Your task to perform on an android device: turn notification dots off Image 0: 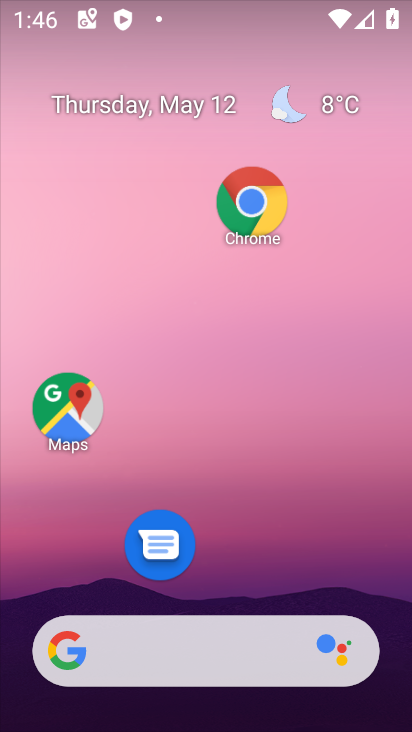
Step 0: click (300, 230)
Your task to perform on an android device: turn notification dots off Image 1: 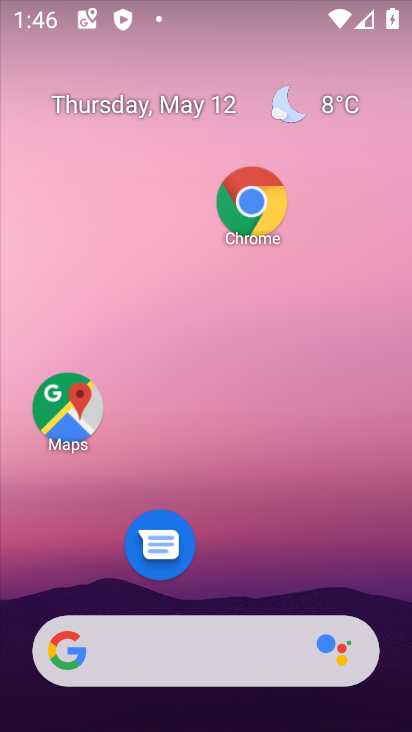
Step 1: drag from (214, 485) to (246, 72)
Your task to perform on an android device: turn notification dots off Image 2: 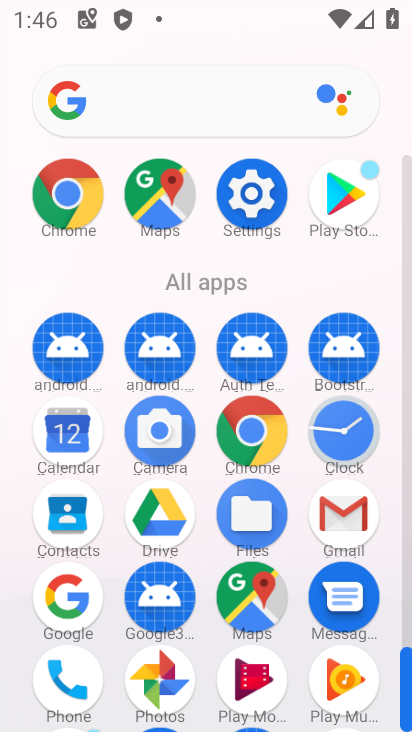
Step 2: click (249, 198)
Your task to perform on an android device: turn notification dots off Image 3: 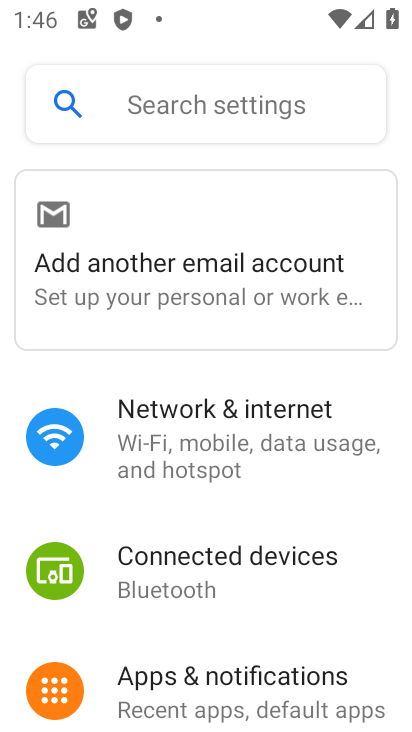
Step 3: drag from (244, 651) to (292, 255)
Your task to perform on an android device: turn notification dots off Image 4: 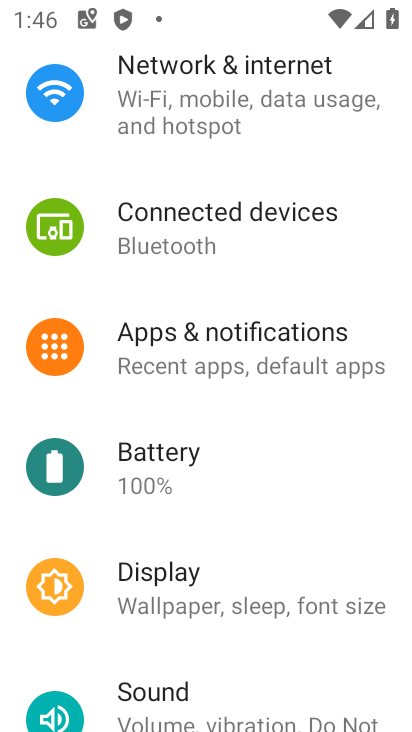
Step 4: click (217, 332)
Your task to perform on an android device: turn notification dots off Image 5: 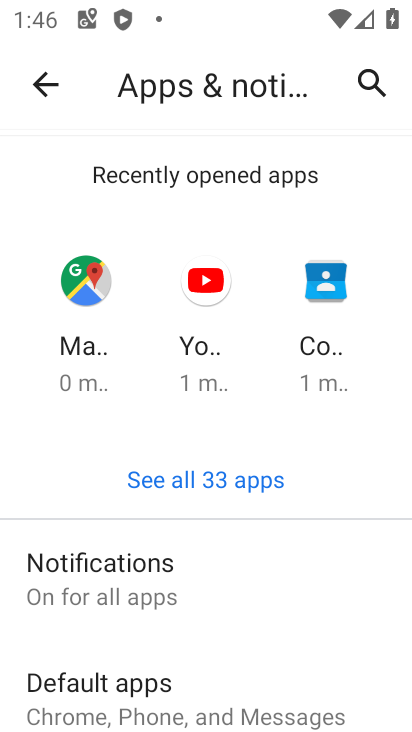
Step 5: drag from (289, 591) to (290, 276)
Your task to perform on an android device: turn notification dots off Image 6: 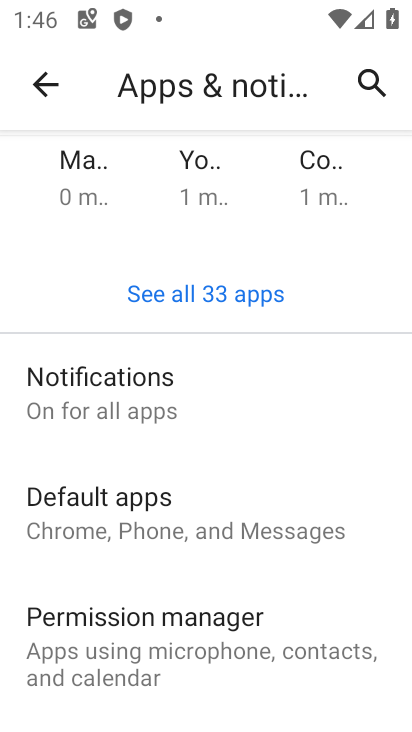
Step 6: drag from (220, 253) to (241, 665)
Your task to perform on an android device: turn notification dots off Image 7: 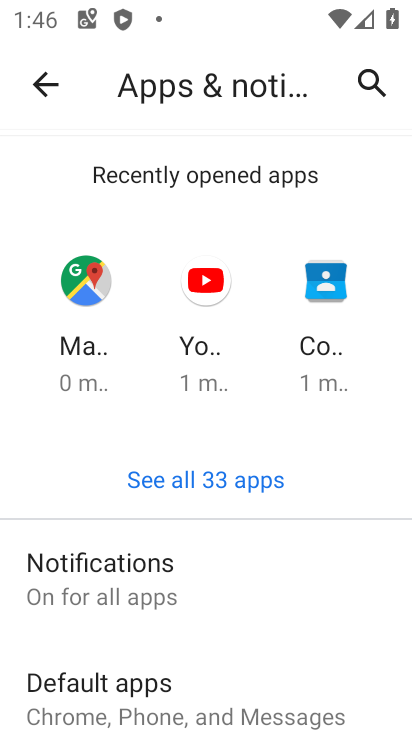
Step 7: drag from (257, 393) to (238, 670)
Your task to perform on an android device: turn notification dots off Image 8: 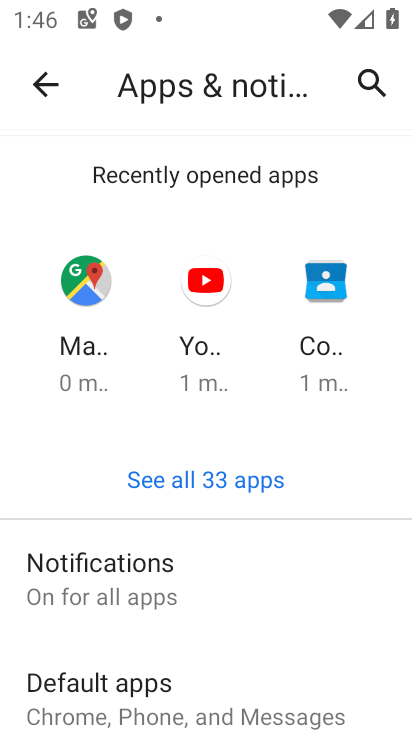
Step 8: drag from (260, 621) to (268, 228)
Your task to perform on an android device: turn notification dots off Image 9: 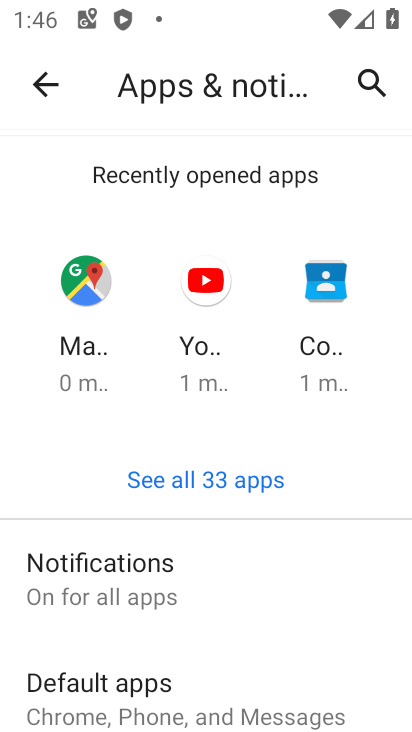
Step 9: drag from (228, 207) to (243, 658)
Your task to perform on an android device: turn notification dots off Image 10: 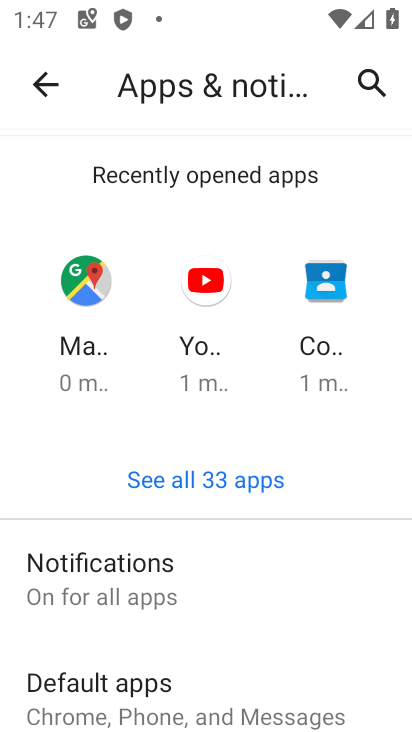
Step 10: click (179, 584)
Your task to perform on an android device: turn notification dots off Image 11: 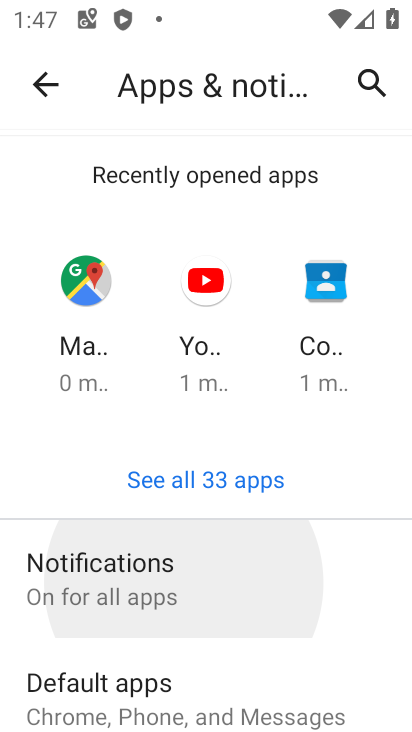
Step 11: click (182, 579)
Your task to perform on an android device: turn notification dots off Image 12: 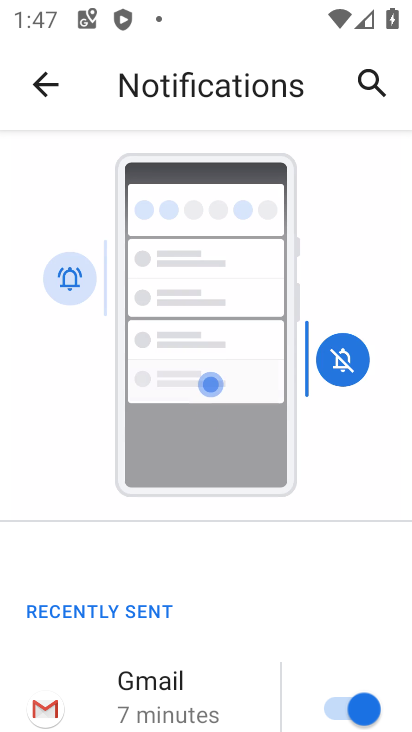
Step 12: drag from (233, 502) to (321, 65)
Your task to perform on an android device: turn notification dots off Image 13: 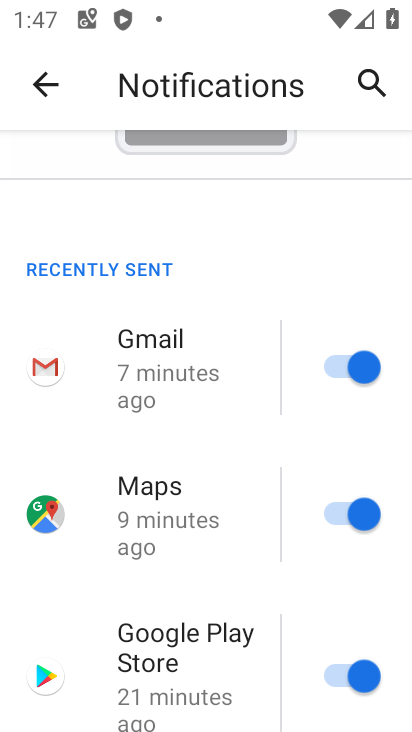
Step 13: drag from (247, 577) to (259, 125)
Your task to perform on an android device: turn notification dots off Image 14: 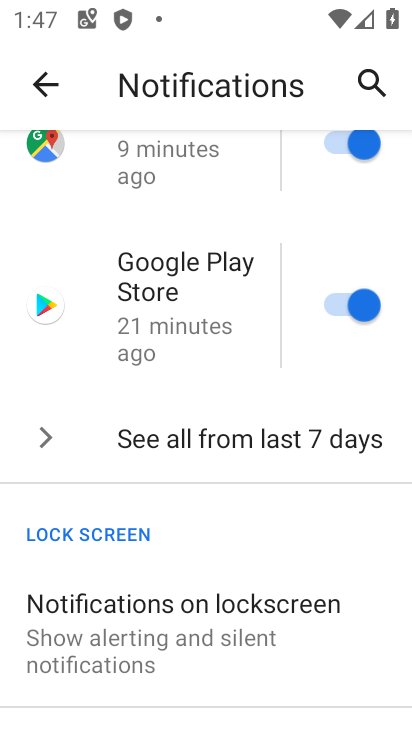
Step 14: drag from (226, 592) to (318, 155)
Your task to perform on an android device: turn notification dots off Image 15: 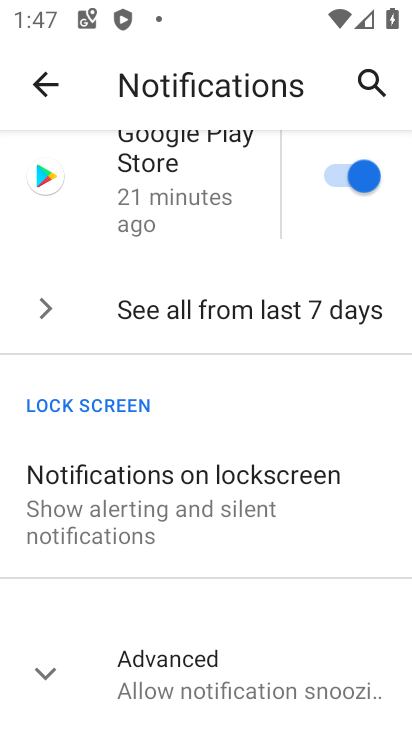
Step 15: click (171, 654)
Your task to perform on an android device: turn notification dots off Image 16: 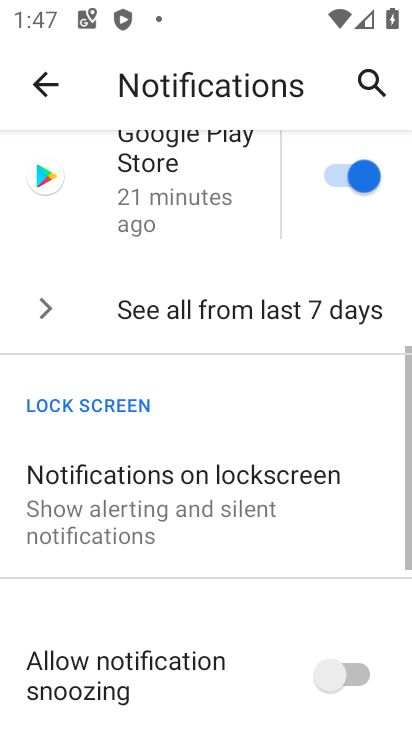
Step 16: drag from (241, 608) to (261, 124)
Your task to perform on an android device: turn notification dots off Image 17: 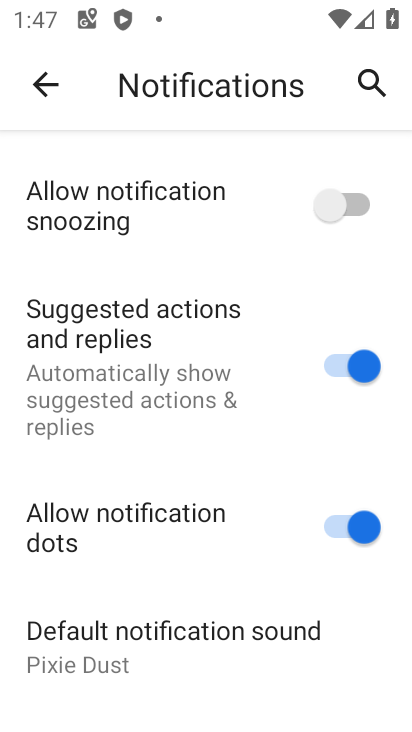
Step 17: click (338, 530)
Your task to perform on an android device: turn notification dots off Image 18: 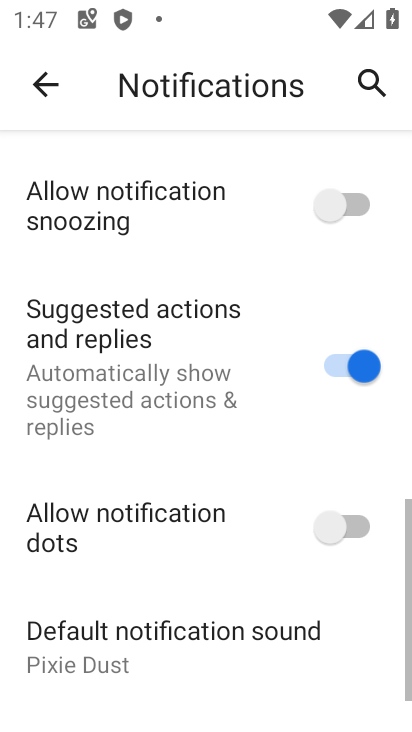
Step 18: task complete